Your task to perform on an android device: change notification settings in the gmail app Image 0: 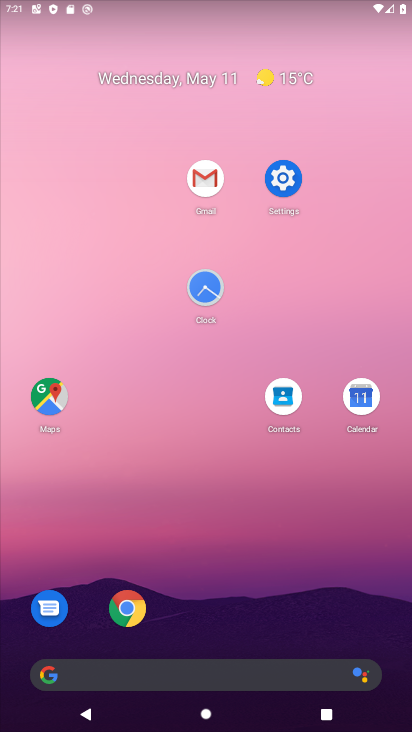
Step 0: click (63, 410)
Your task to perform on an android device: change notification settings in the gmail app Image 1: 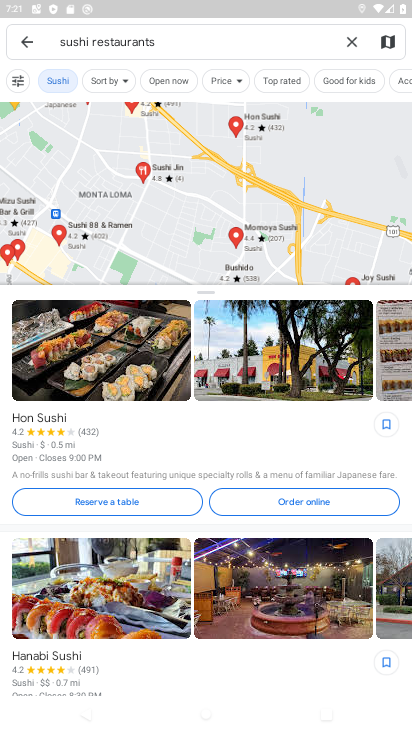
Step 1: press home button
Your task to perform on an android device: change notification settings in the gmail app Image 2: 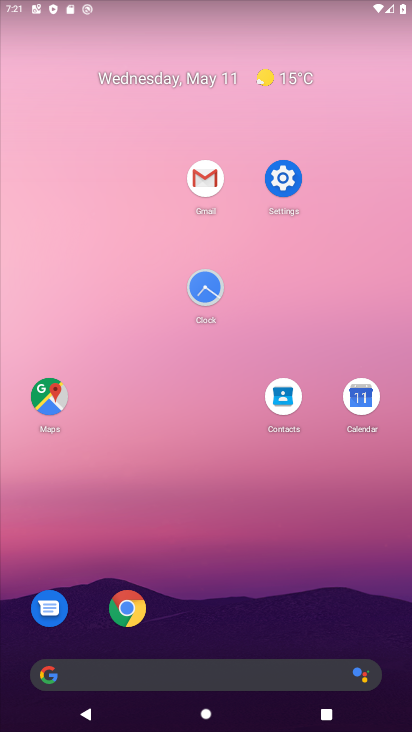
Step 2: click (134, 610)
Your task to perform on an android device: change notification settings in the gmail app Image 3: 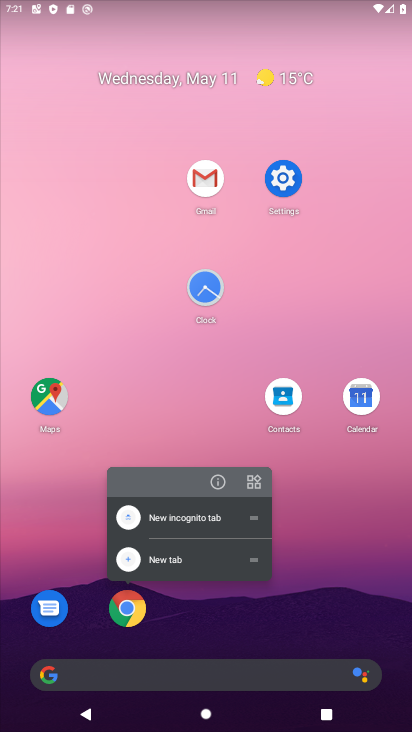
Step 3: click (134, 610)
Your task to perform on an android device: change notification settings in the gmail app Image 4: 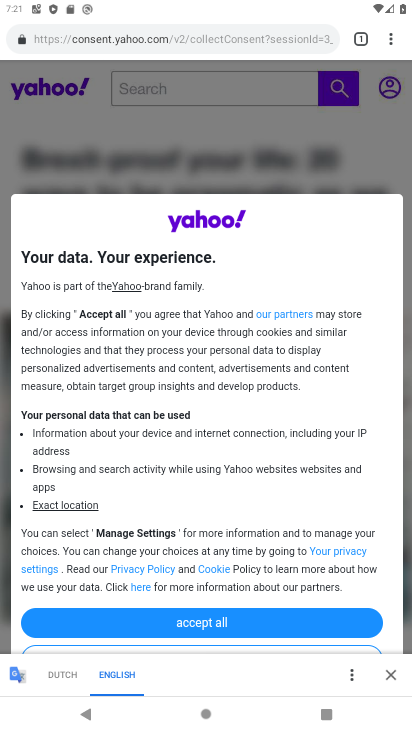
Step 4: click (391, 668)
Your task to perform on an android device: change notification settings in the gmail app Image 5: 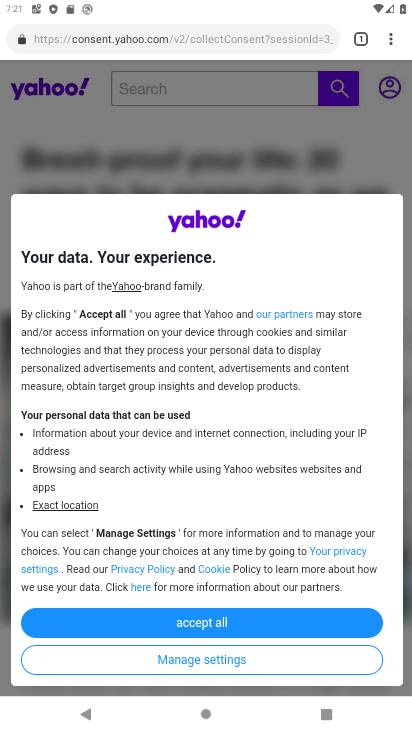
Step 5: click (390, 38)
Your task to perform on an android device: change notification settings in the gmail app Image 6: 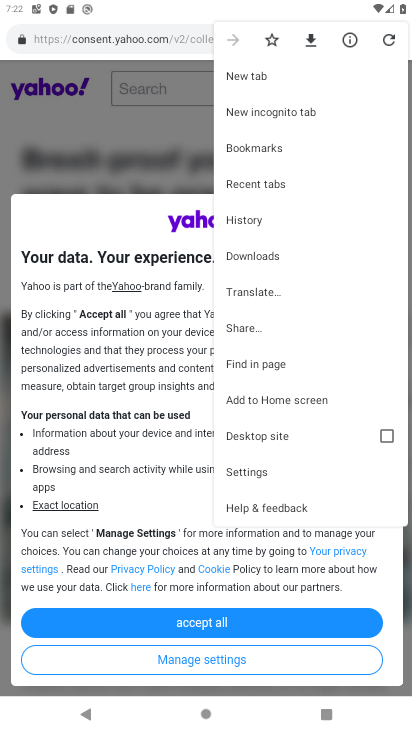
Step 6: click (278, 475)
Your task to perform on an android device: change notification settings in the gmail app Image 7: 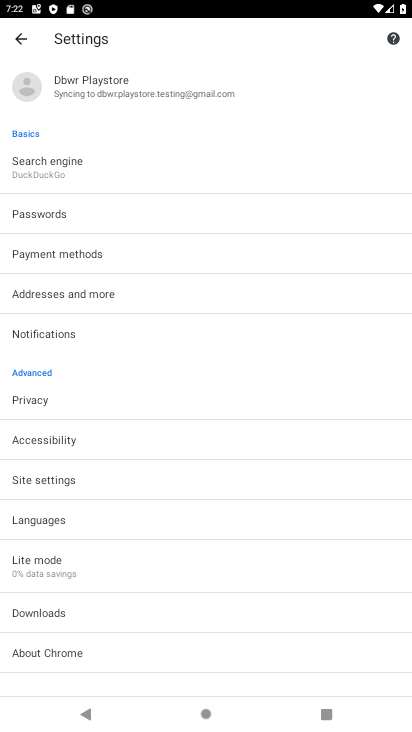
Step 7: click (148, 322)
Your task to perform on an android device: change notification settings in the gmail app Image 8: 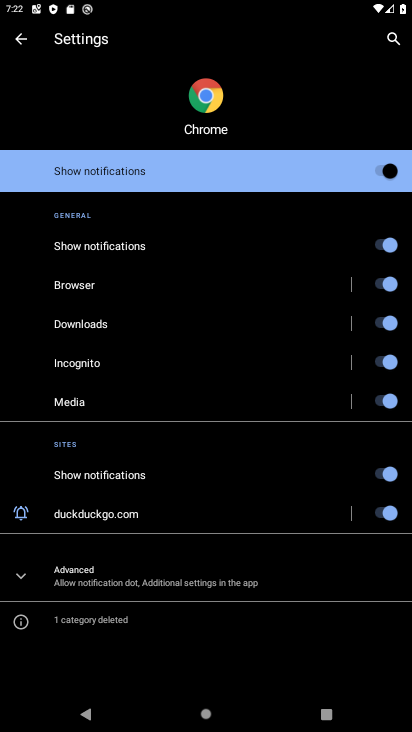
Step 8: click (388, 171)
Your task to perform on an android device: change notification settings in the gmail app Image 9: 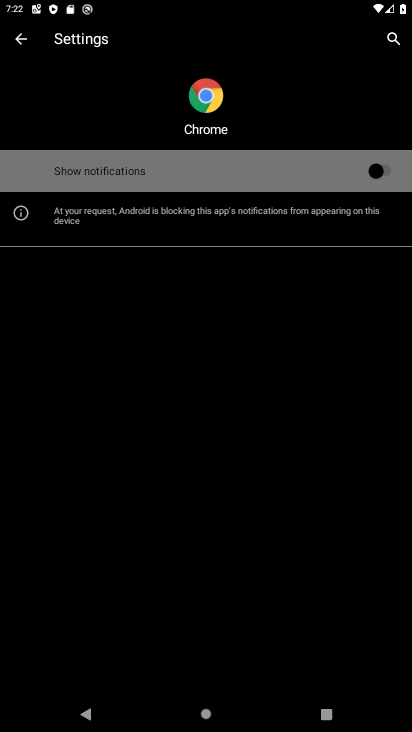
Step 9: task complete